Your task to perform on an android device: find photos in the google photos app Image 0: 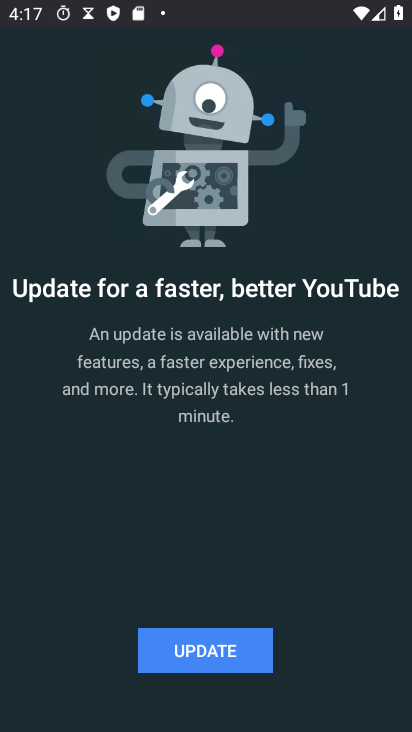
Step 0: press home button
Your task to perform on an android device: find photos in the google photos app Image 1: 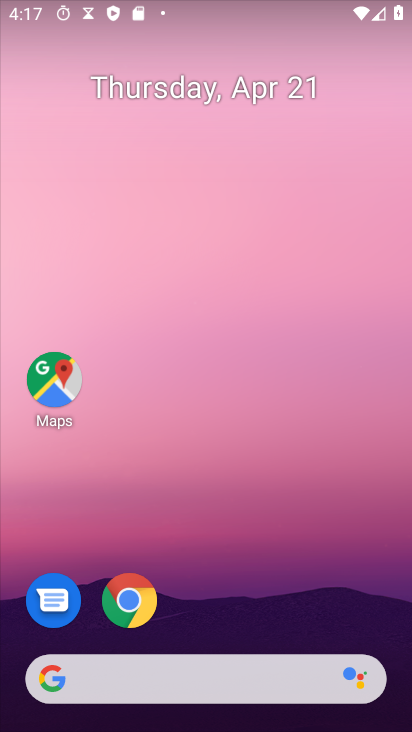
Step 1: drag from (210, 620) to (313, 111)
Your task to perform on an android device: find photos in the google photos app Image 2: 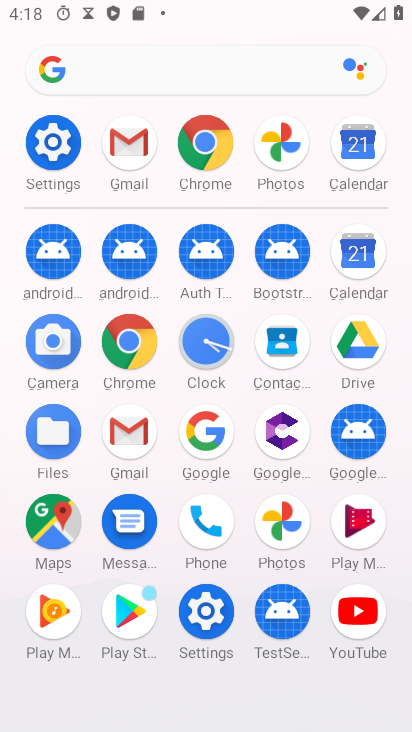
Step 2: click (283, 522)
Your task to perform on an android device: find photos in the google photos app Image 3: 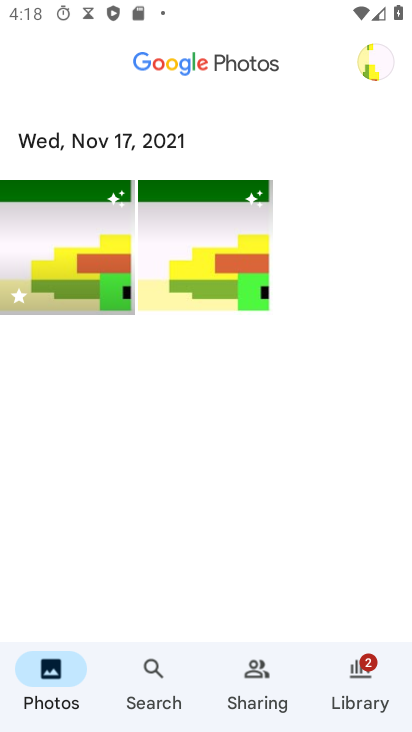
Step 3: click (151, 674)
Your task to perform on an android device: find photos in the google photos app Image 4: 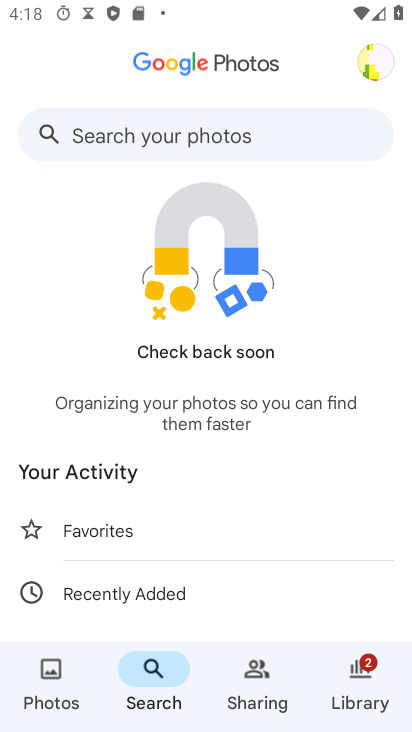
Step 4: click (130, 538)
Your task to perform on an android device: find photos in the google photos app Image 5: 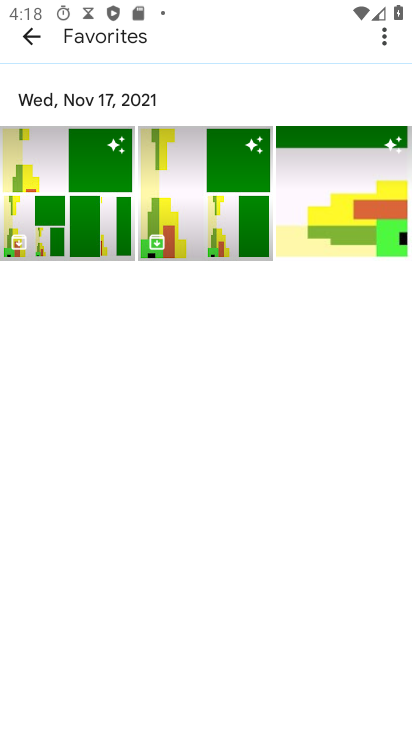
Step 5: task complete